Your task to perform on an android device: turn off wifi Image 0: 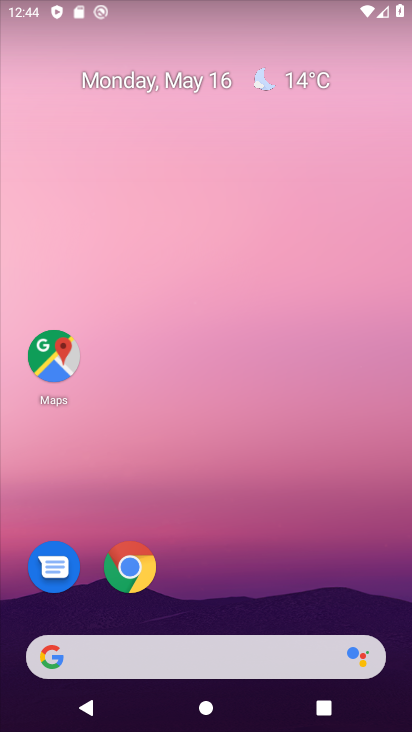
Step 0: drag from (255, 517) to (102, 9)
Your task to perform on an android device: turn off wifi Image 1: 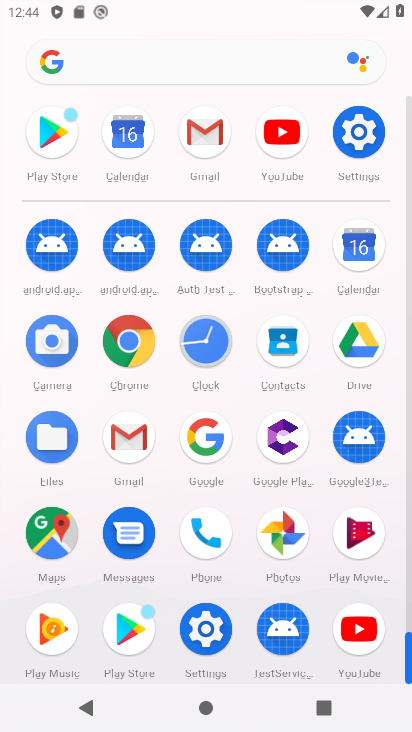
Step 1: click (353, 130)
Your task to perform on an android device: turn off wifi Image 2: 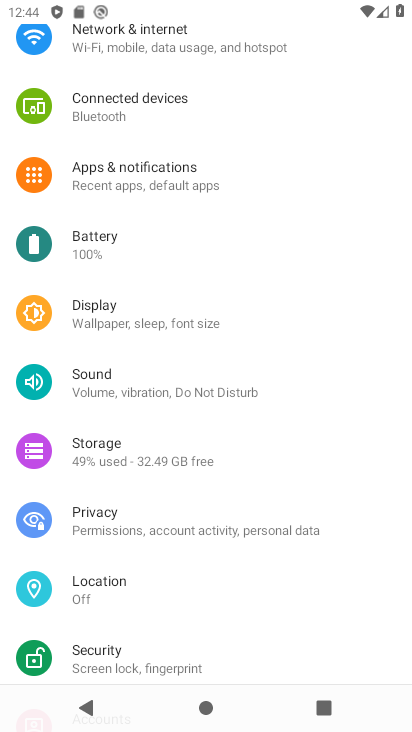
Step 2: drag from (127, 116) to (233, 671)
Your task to perform on an android device: turn off wifi Image 3: 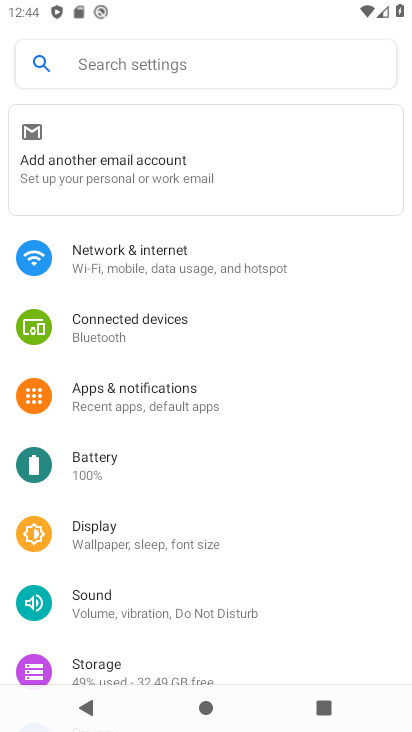
Step 3: click (126, 247)
Your task to perform on an android device: turn off wifi Image 4: 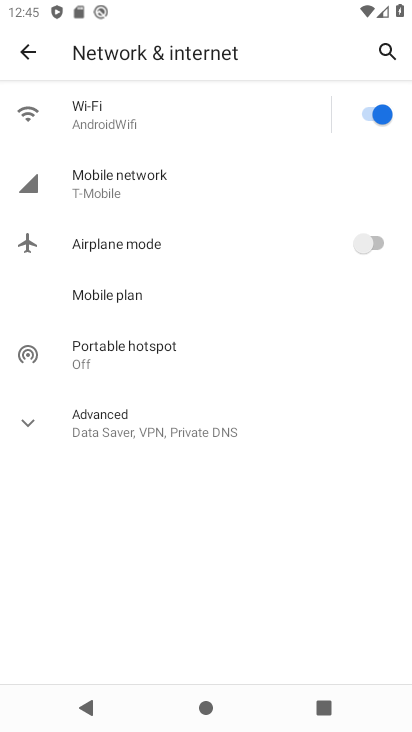
Step 4: click (370, 111)
Your task to perform on an android device: turn off wifi Image 5: 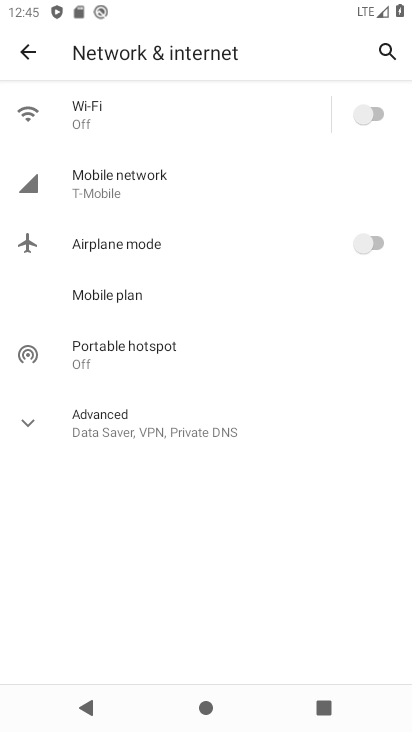
Step 5: task complete